Your task to perform on an android device: Go to internet settings Image 0: 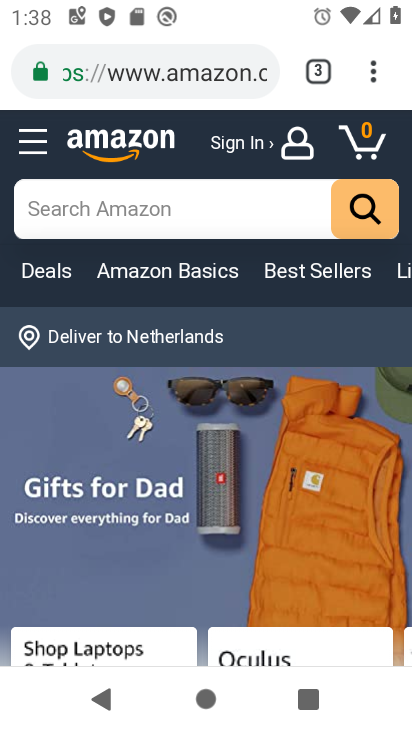
Step 0: press home button
Your task to perform on an android device: Go to internet settings Image 1: 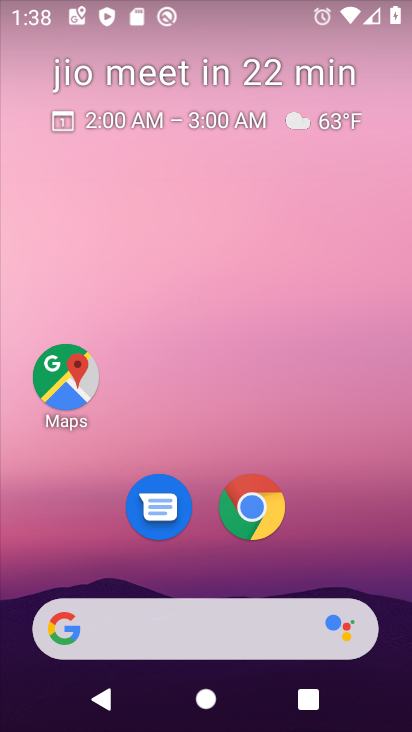
Step 1: drag from (306, 519) to (284, 0)
Your task to perform on an android device: Go to internet settings Image 2: 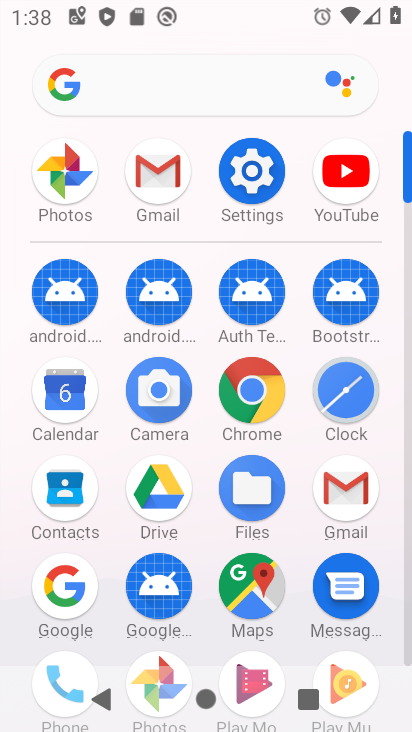
Step 2: click (251, 169)
Your task to perform on an android device: Go to internet settings Image 3: 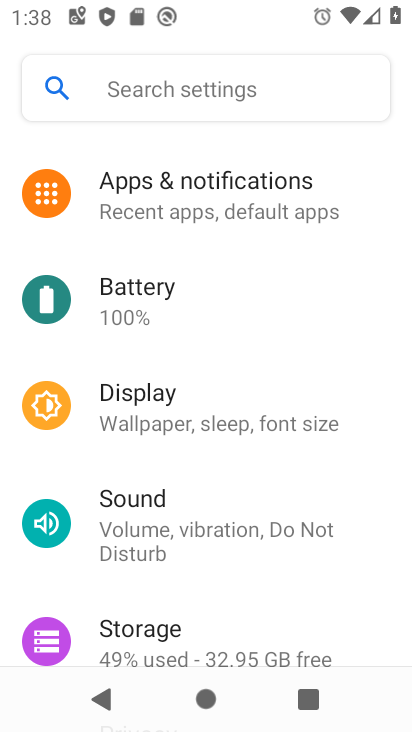
Step 3: click (251, 206)
Your task to perform on an android device: Go to internet settings Image 4: 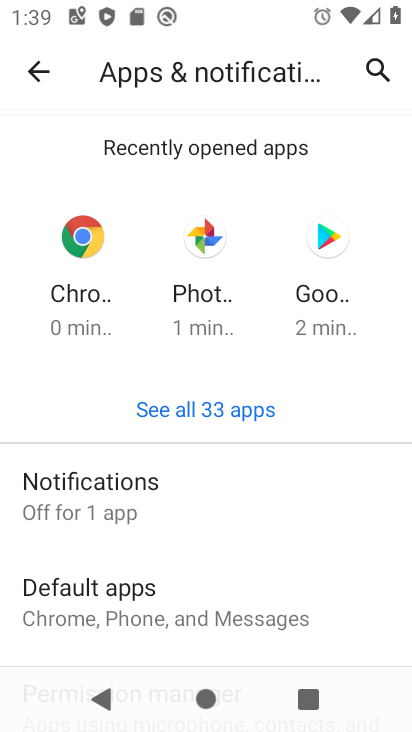
Step 4: press home button
Your task to perform on an android device: Go to internet settings Image 5: 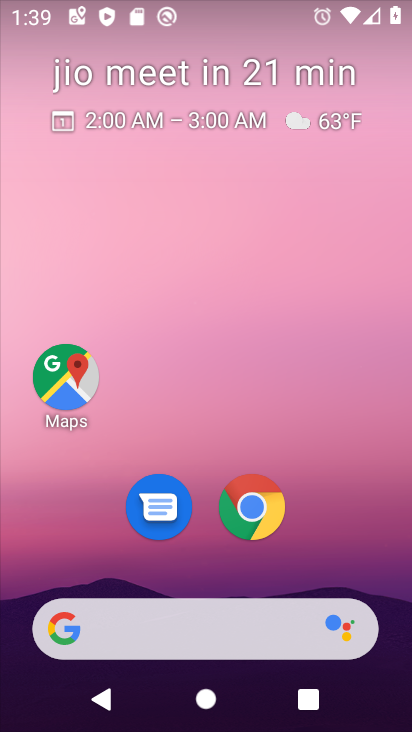
Step 5: drag from (327, 495) to (313, 13)
Your task to perform on an android device: Go to internet settings Image 6: 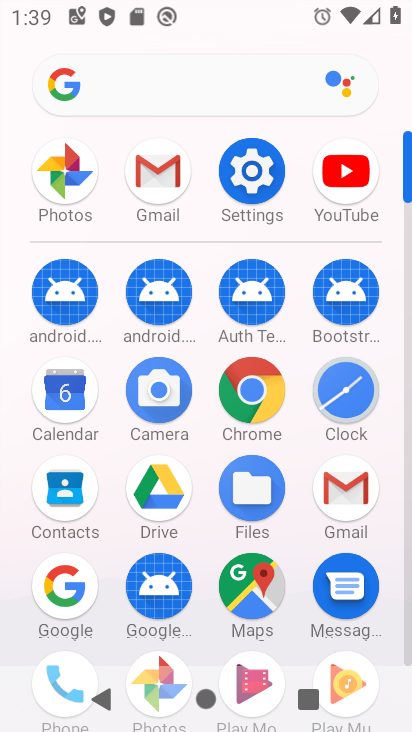
Step 6: click (257, 153)
Your task to perform on an android device: Go to internet settings Image 7: 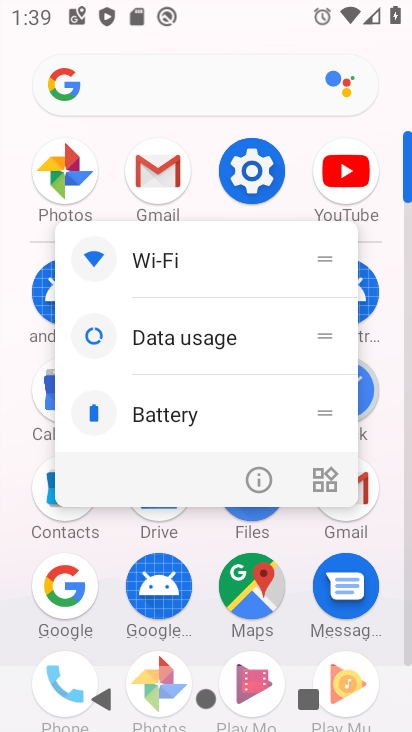
Step 7: click (257, 152)
Your task to perform on an android device: Go to internet settings Image 8: 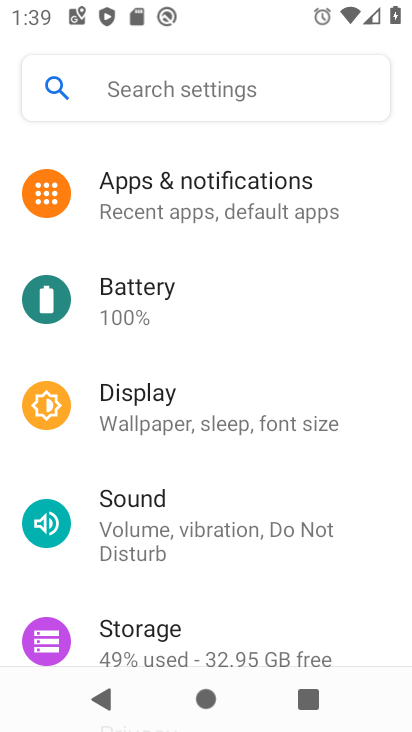
Step 8: drag from (224, 267) to (262, 601)
Your task to perform on an android device: Go to internet settings Image 9: 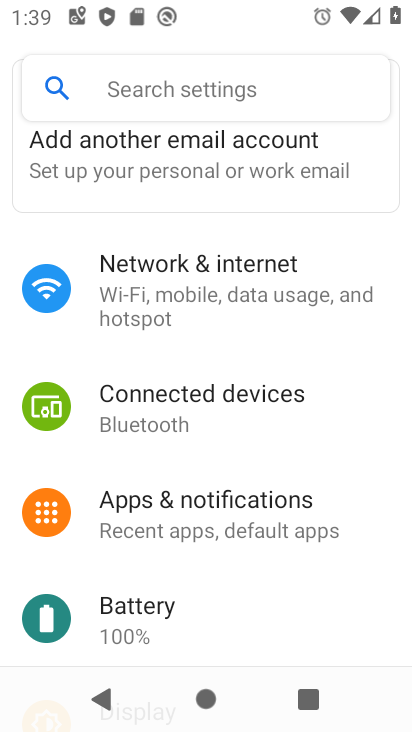
Step 9: click (294, 276)
Your task to perform on an android device: Go to internet settings Image 10: 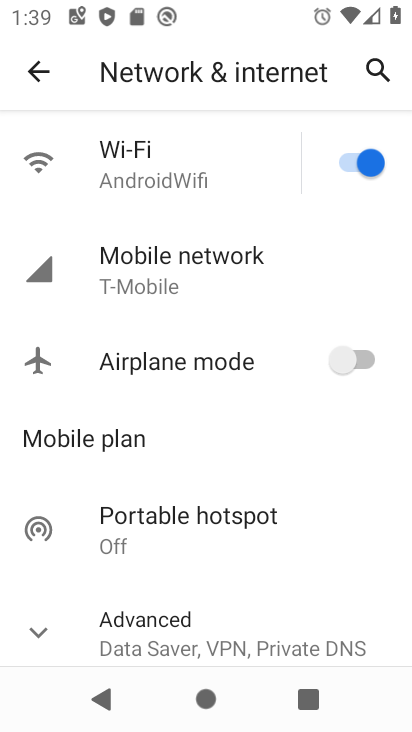
Step 10: task complete